Your task to perform on an android device: Open the phone app and click the voicemail tab. Image 0: 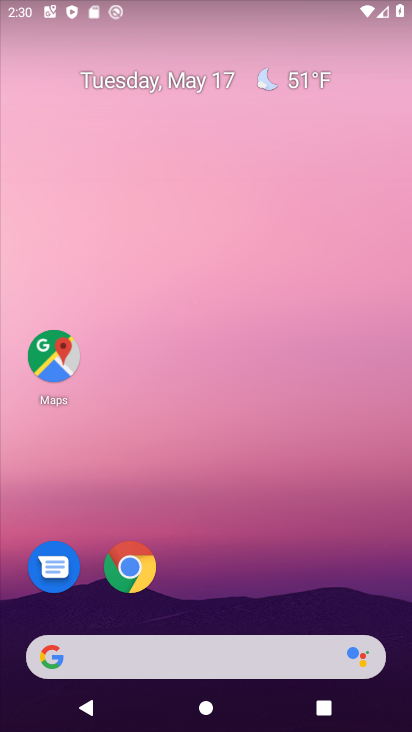
Step 0: drag from (199, 656) to (246, 342)
Your task to perform on an android device: Open the phone app and click the voicemail tab. Image 1: 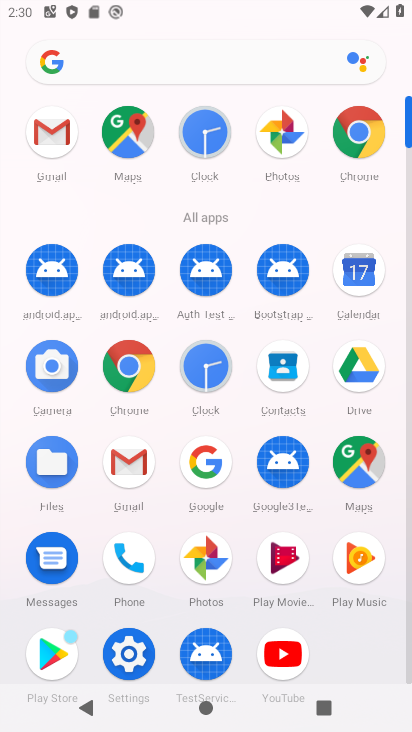
Step 1: click (133, 562)
Your task to perform on an android device: Open the phone app and click the voicemail tab. Image 2: 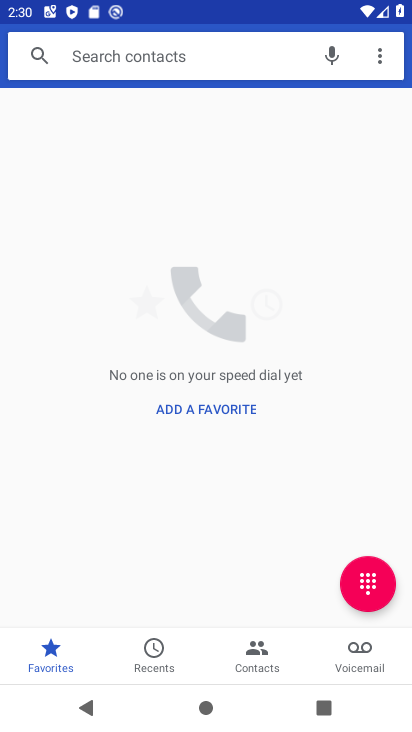
Step 2: click (365, 655)
Your task to perform on an android device: Open the phone app and click the voicemail tab. Image 3: 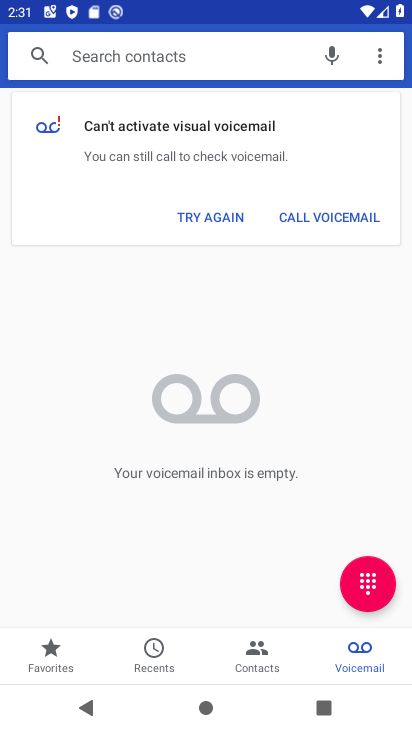
Step 3: task complete